Your task to perform on an android device: empty trash in the gmail app Image 0: 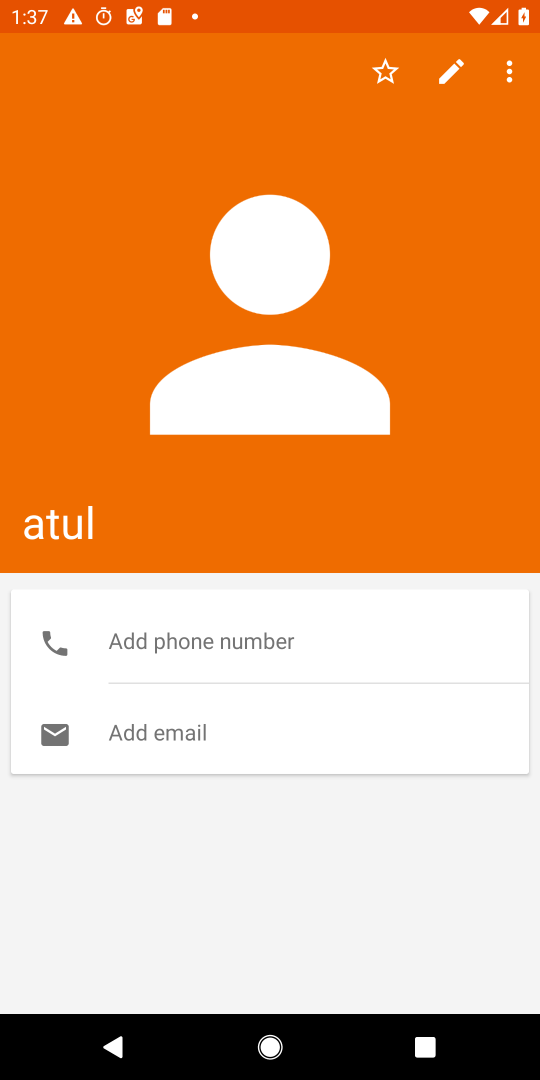
Step 0: press home button
Your task to perform on an android device: empty trash in the gmail app Image 1: 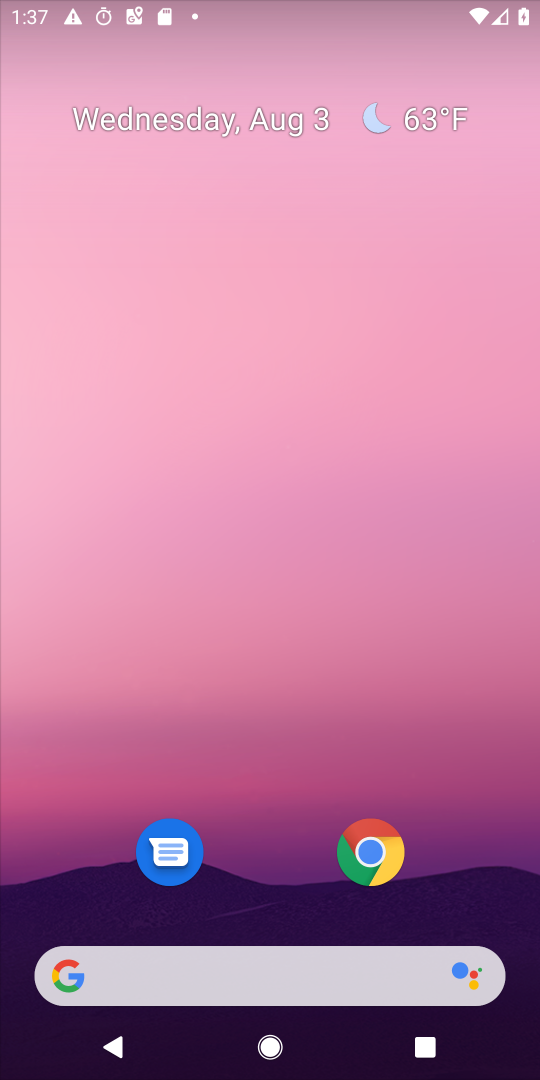
Step 1: drag from (488, 863) to (229, 72)
Your task to perform on an android device: empty trash in the gmail app Image 2: 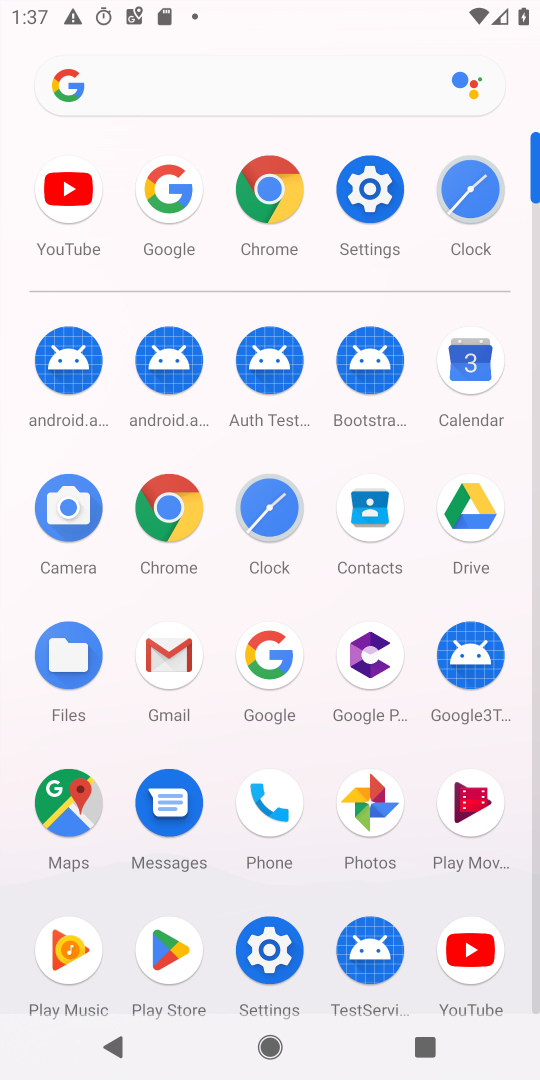
Step 2: click (168, 662)
Your task to perform on an android device: empty trash in the gmail app Image 3: 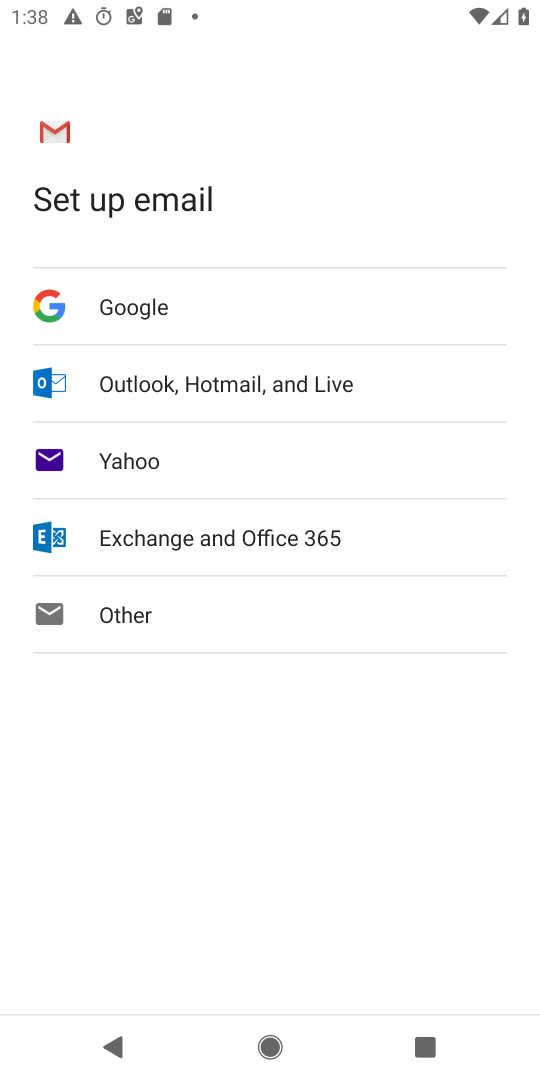
Step 3: press back button
Your task to perform on an android device: empty trash in the gmail app Image 4: 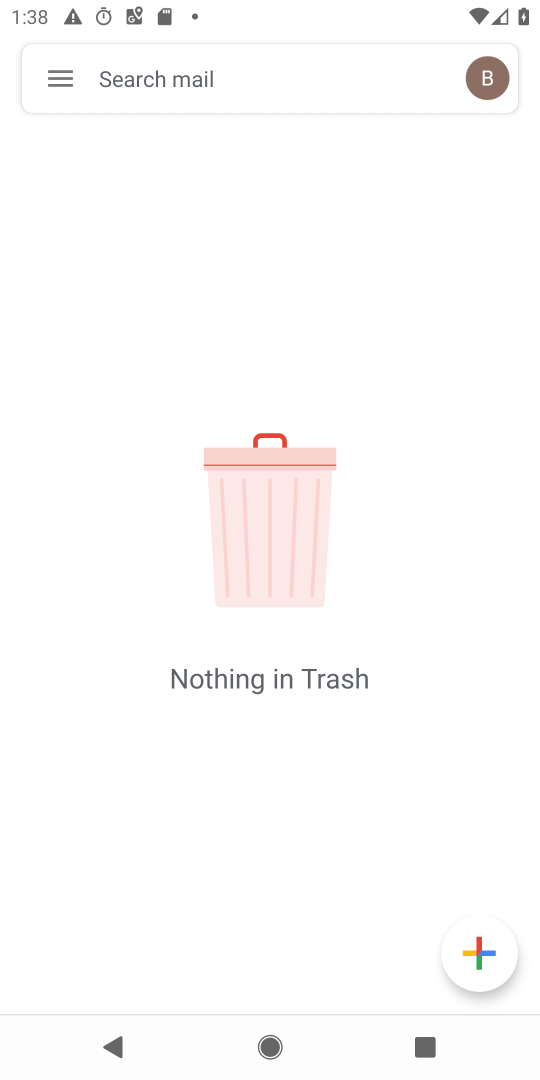
Step 4: click (58, 82)
Your task to perform on an android device: empty trash in the gmail app Image 5: 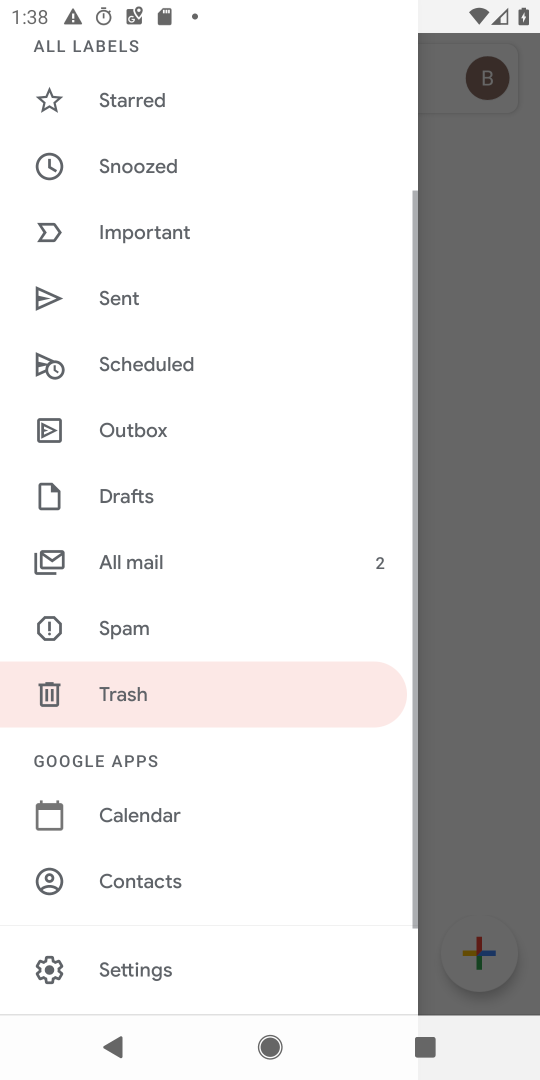
Step 5: click (110, 702)
Your task to perform on an android device: empty trash in the gmail app Image 6: 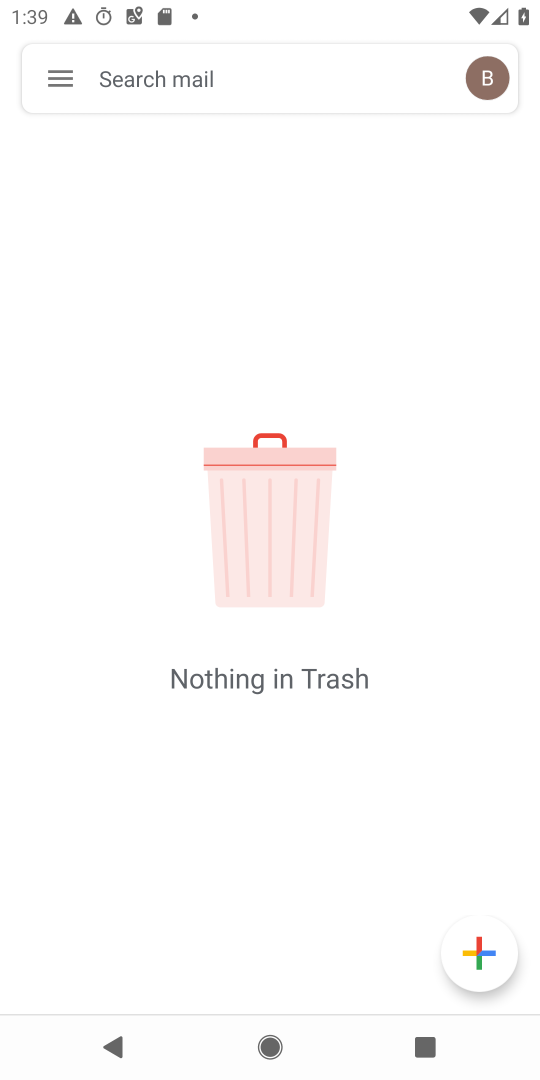
Step 6: task complete